Your task to perform on an android device: uninstall "Calculator" Image 0: 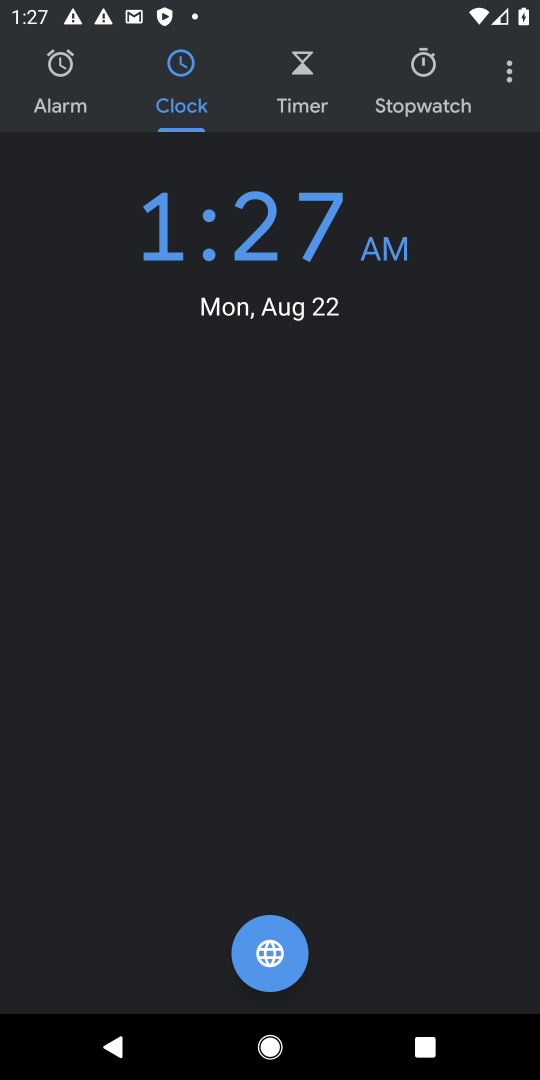
Step 0: press home button
Your task to perform on an android device: uninstall "Calculator" Image 1: 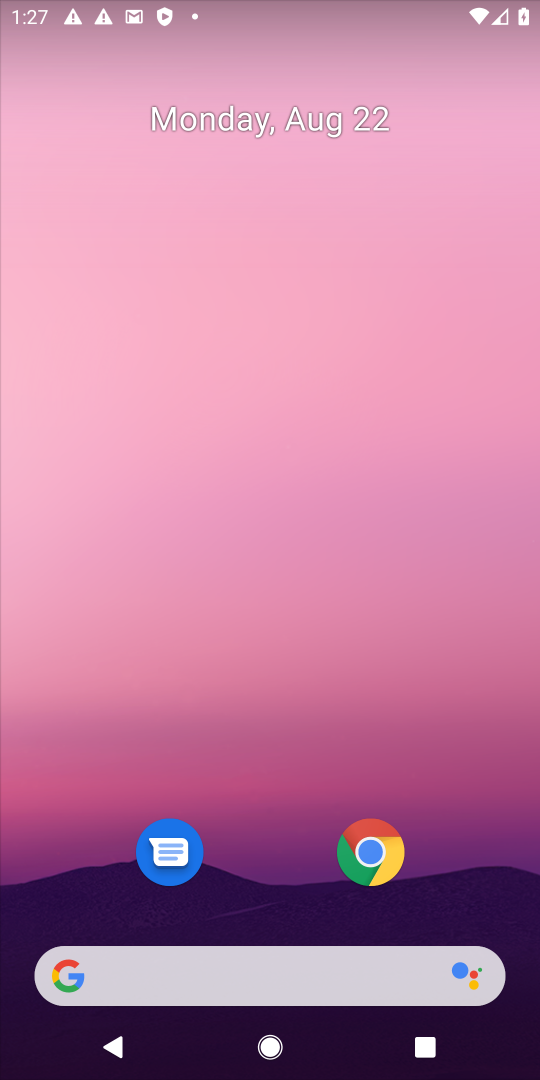
Step 1: drag from (279, 960) to (239, 44)
Your task to perform on an android device: uninstall "Calculator" Image 2: 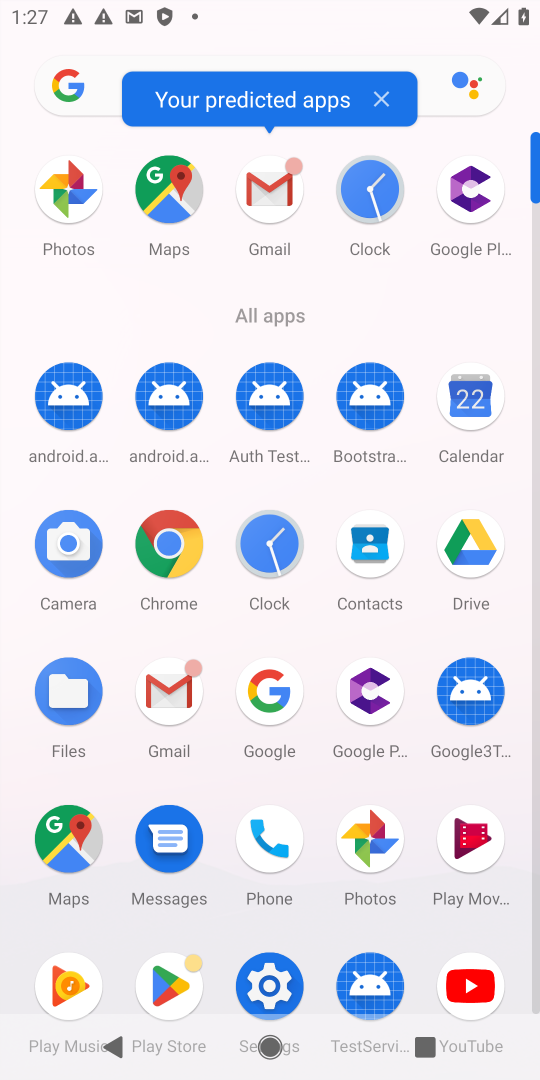
Step 2: click (150, 979)
Your task to perform on an android device: uninstall "Calculator" Image 3: 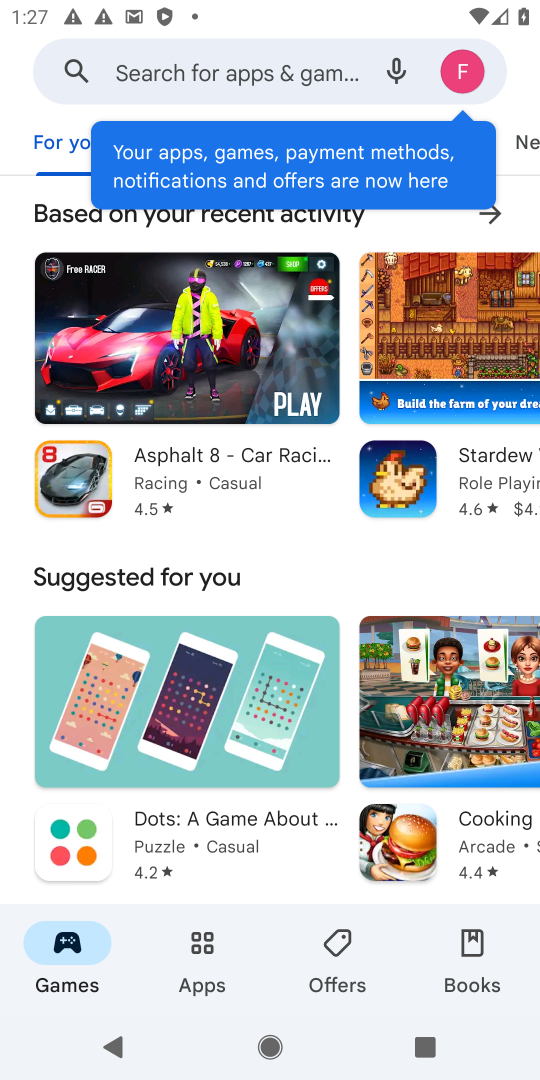
Step 3: click (319, 76)
Your task to perform on an android device: uninstall "Calculator" Image 4: 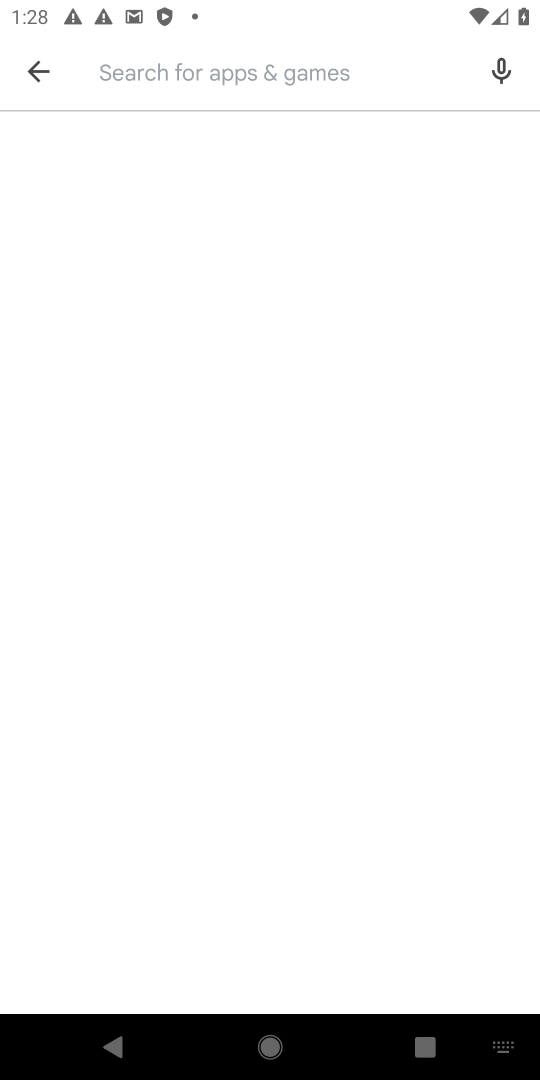
Step 4: type "calculator"
Your task to perform on an android device: uninstall "Calculator" Image 5: 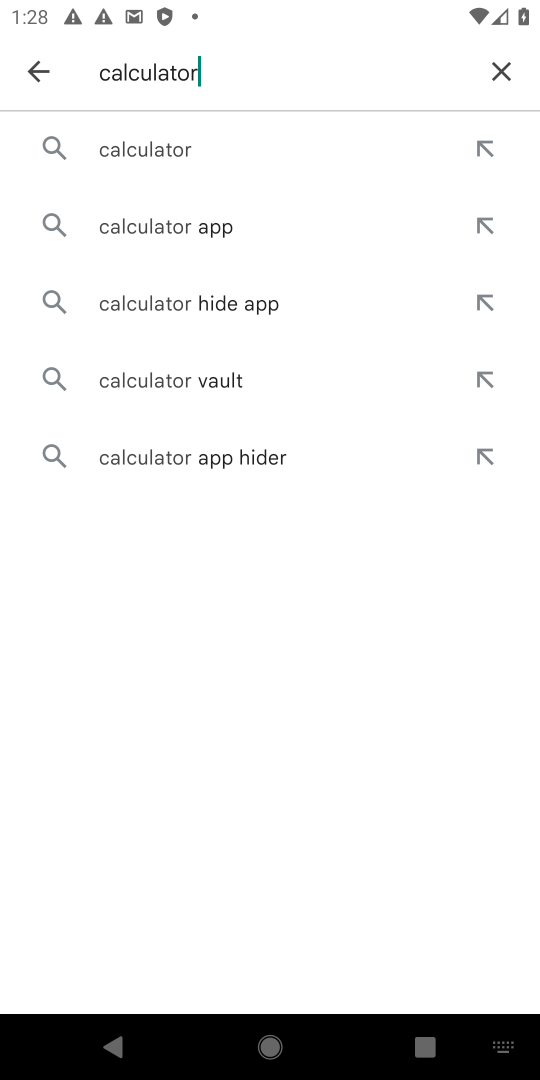
Step 5: click (160, 152)
Your task to perform on an android device: uninstall "Calculator" Image 6: 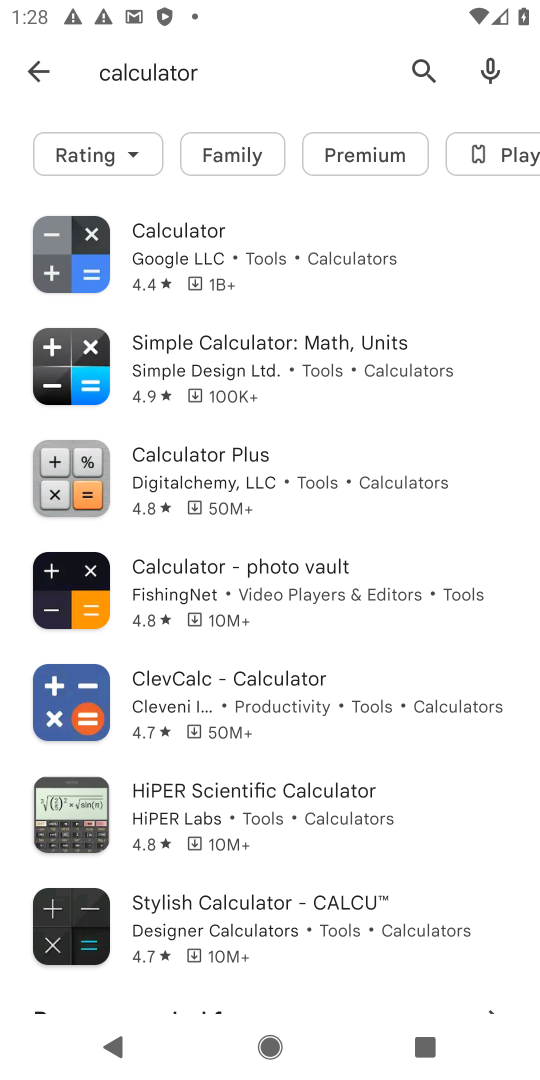
Step 6: click (274, 253)
Your task to perform on an android device: uninstall "Calculator" Image 7: 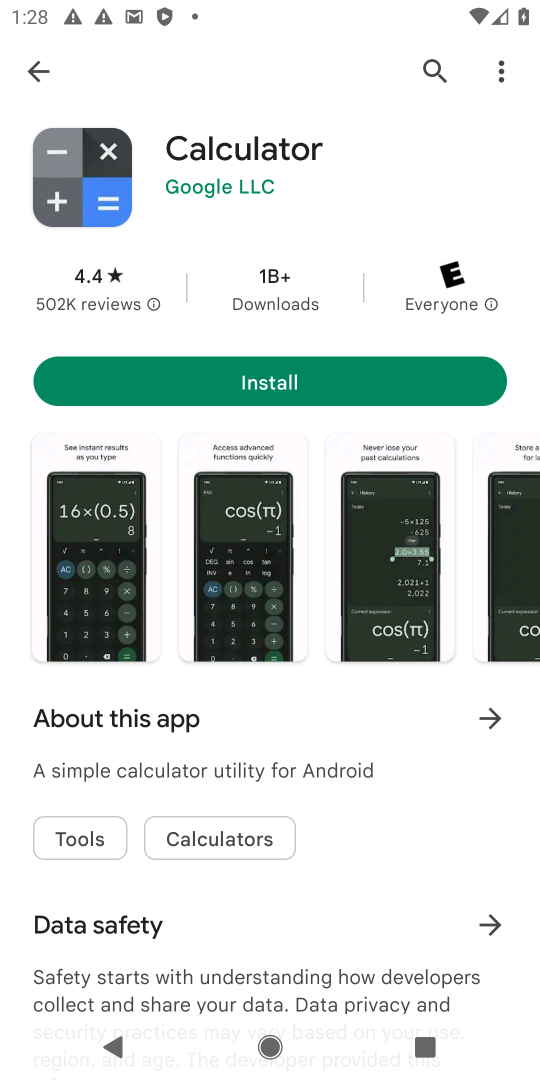
Step 7: task complete